Your task to perform on an android device: stop showing notifications on the lock screen Image 0: 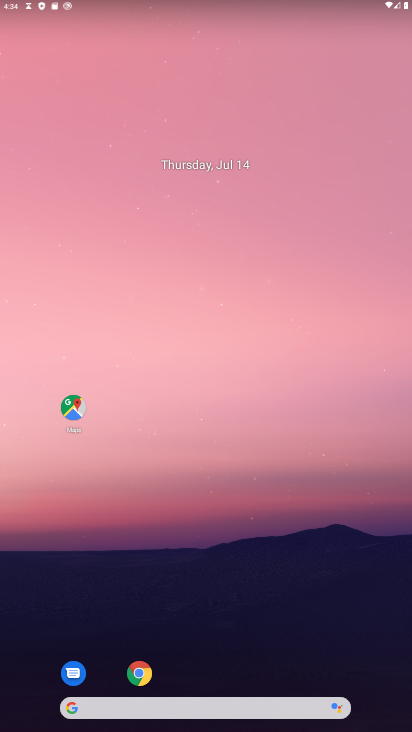
Step 0: drag from (186, 622) to (127, 130)
Your task to perform on an android device: stop showing notifications on the lock screen Image 1: 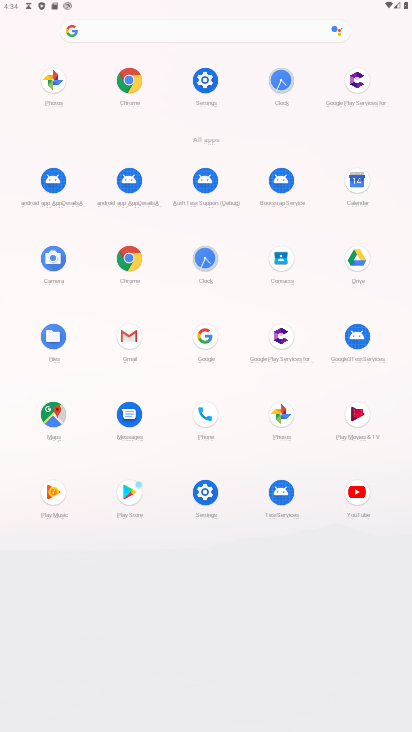
Step 1: click (198, 86)
Your task to perform on an android device: stop showing notifications on the lock screen Image 2: 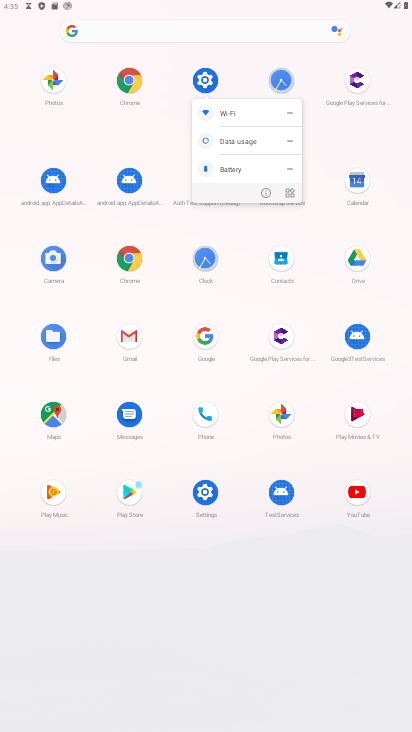
Step 2: click (209, 78)
Your task to perform on an android device: stop showing notifications on the lock screen Image 3: 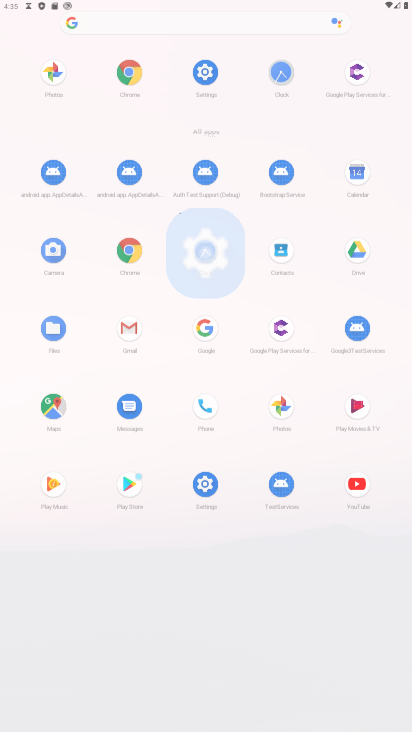
Step 3: click (209, 78)
Your task to perform on an android device: stop showing notifications on the lock screen Image 4: 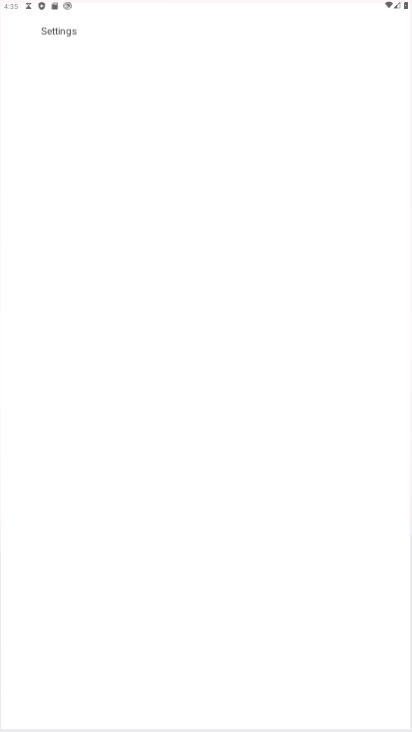
Step 4: click (209, 78)
Your task to perform on an android device: stop showing notifications on the lock screen Image 5: 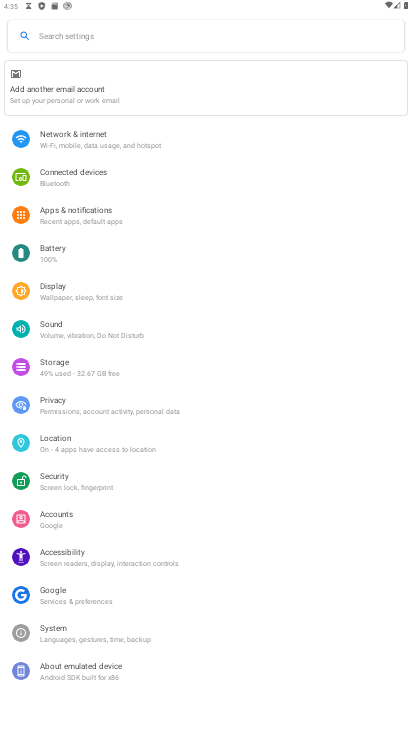
Step 5: click (75, 220)
Your task to perform on an android device: stop showing notifications on the lock screen Image 6: 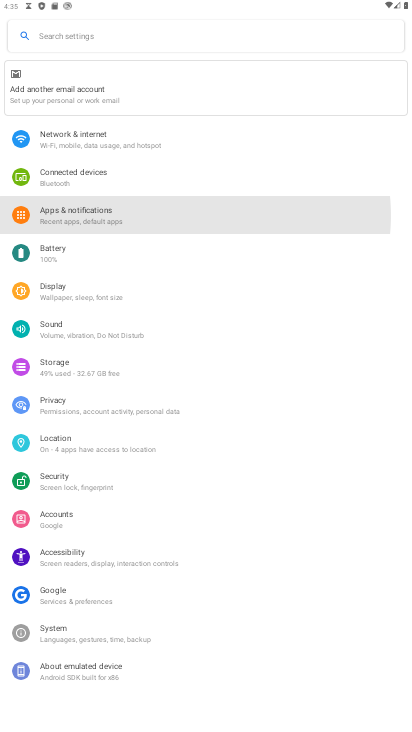
Step 6: click (75, 220)
Your task to perform on an android device: stop showing notifications on the lock screen Image 7: 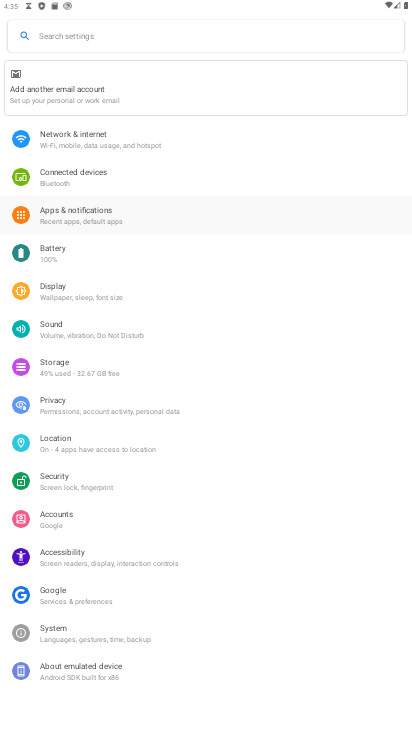
Step 7: click (78, 220)
Your task to perform on an android device: stop showing notifications on the lock screen Image 8: 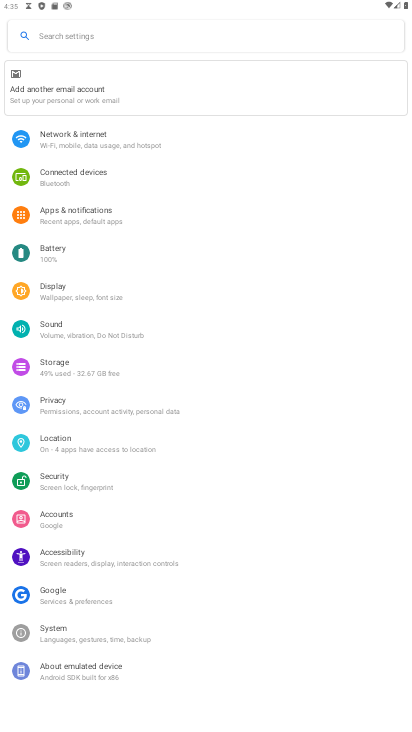
Step 8: click (78, 220)
Your task to perform on an android device: stop showing notifications on the lock screen Image 9: 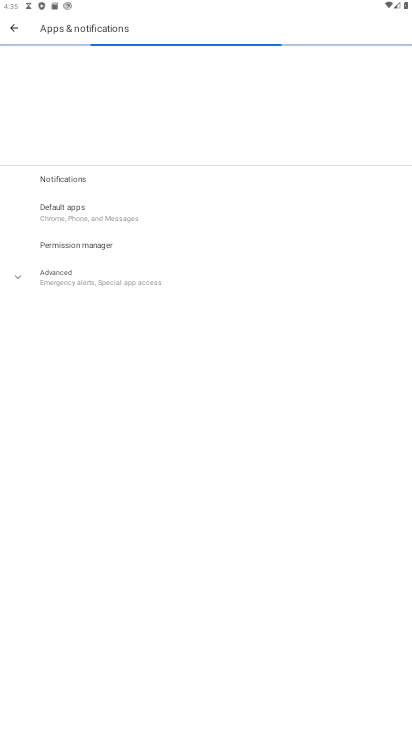
Step 9: click (79, 219)
Your task to perform on an android device: stop showing notifications on the lock screen Image 10: 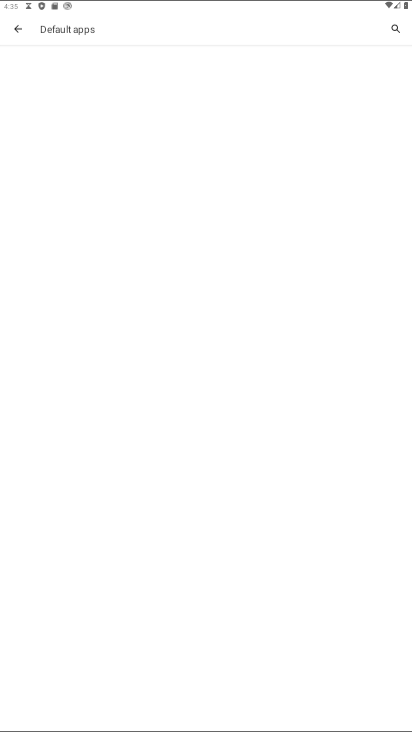
Step 10: click (62, 175)
Your task to perform on an android device: stop showing notifications on the lock screen Image 11: 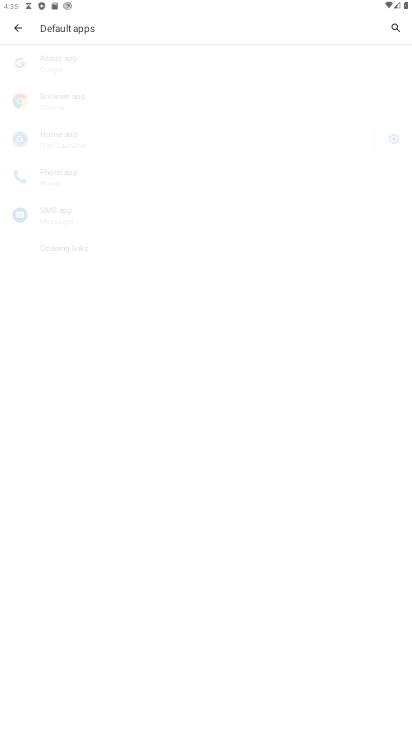
Step 11: click (62, 176)
Your task to perform on an android device: stop showing notifications on the lock screen Image 12: 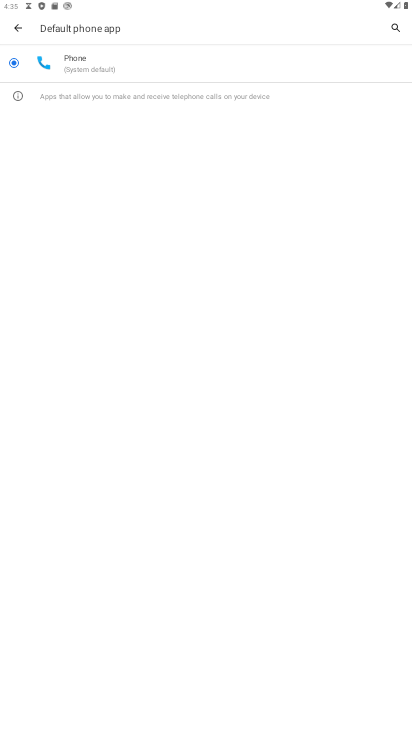
Step 12: click (18, 24)
Your task to perform on an android device: stop showing notifications on the lock screen Image 13: 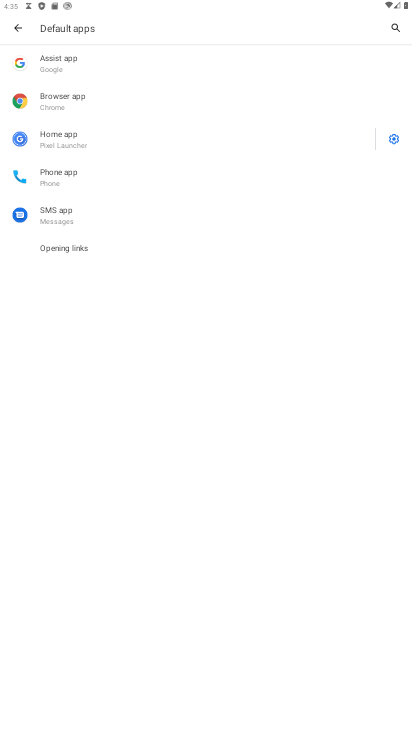
Step 13: click (22, 28)
Your task to perform on an android device: stop showing notifications on the lock screen Image 14: 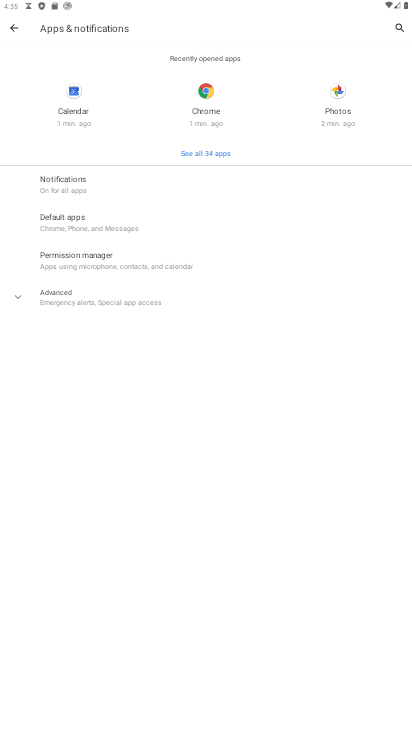
Step 14: click (52, 180)
Your task to perform on an android device: stop showing notifications on the lock screen Image 15: 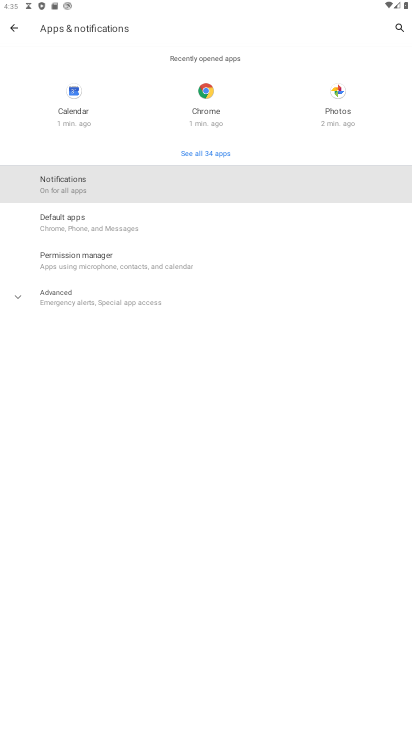
Step 15: click (51, 179)
Your task to perform on an android device: stop showing notifications on the lock screen Image 16: 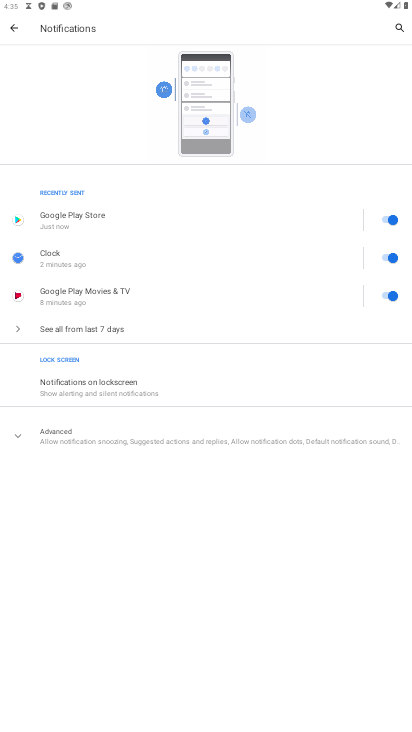
Step 16: click (70, 380)
Your task to perform on an android device: stop showing notifications on the lock screen Image 17: 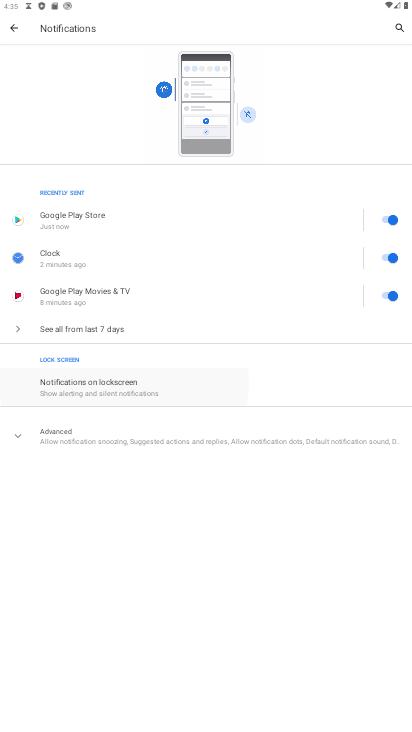
Step 17: click (70, 380)
Your task to perform on an android device: stop showing notifications on the lock screen Image 18: 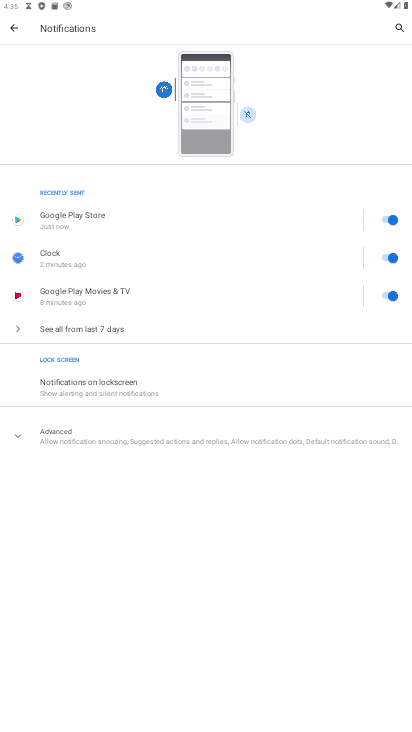
Step 18: click (72, 382)
Your task to perform on an android device: stop showing notifications on the lock screen Image 19: 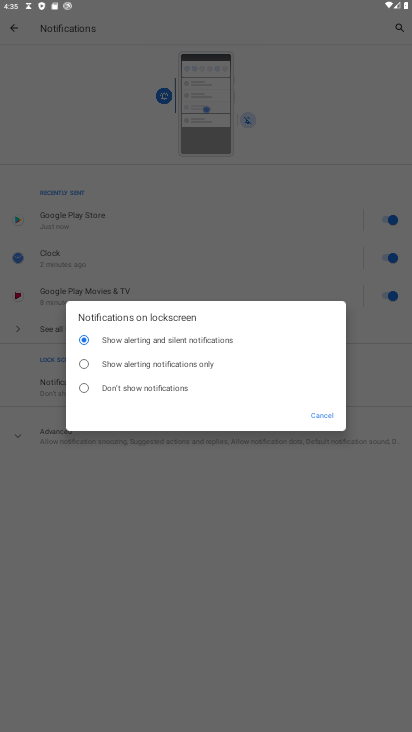
Step 19: click (326, 411)
Your task to perform on an android device: stop showing notifications on the lock screen Image 20: 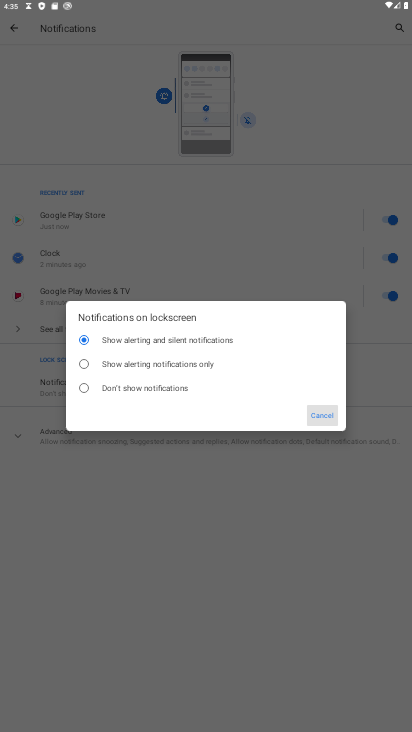
Step 20: task complete